Your task to perform on an android device: delete the emails in spam in the gmail app Image 0: 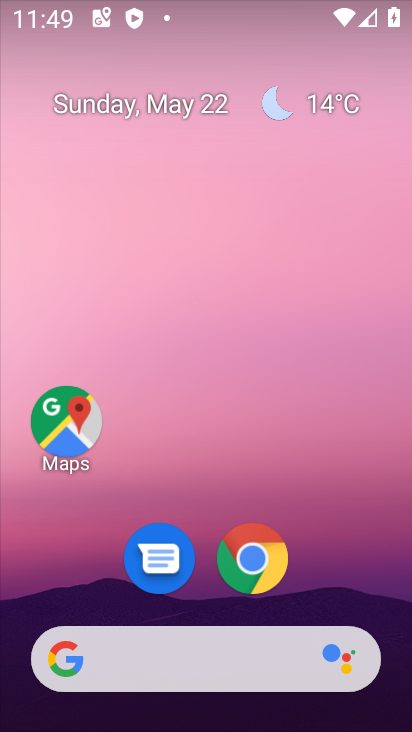
Step 0: drag from (363, 601) to (410, 347)
Your task to perform on an android device: delete the emails in spam in the gmail app Image 1: 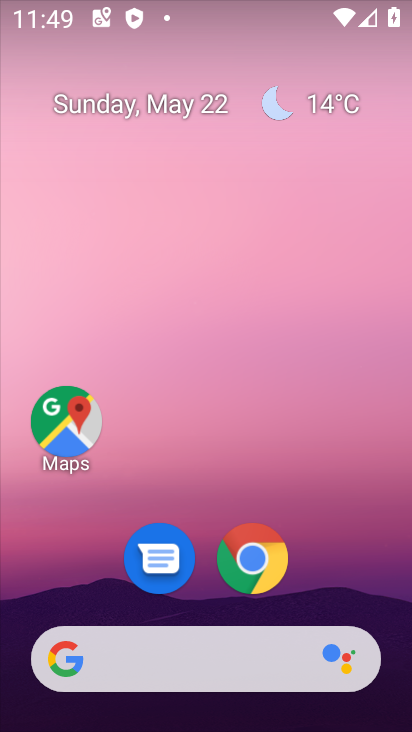
Step 1: drag from (346, 569) to (364, 1)
Your task to perform on an android device: delete the emails in spam in the gmail app Image 2: 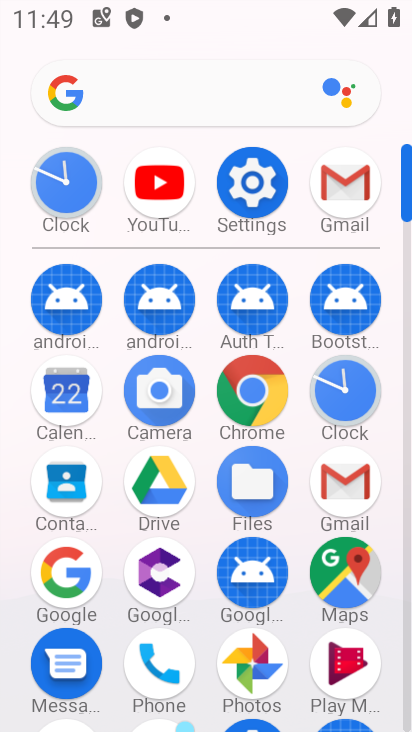
Step 2: click (346, 204)
Your task to perform on an android device: delete the emails in spam in the gmail app Image 3: 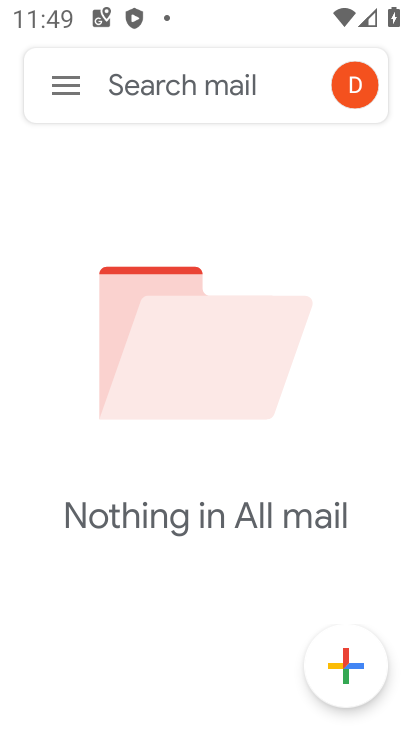
Step 3: click (66, 87)
Your task to perform on an android device: delete the emails in spam in the gmail app Image 4: 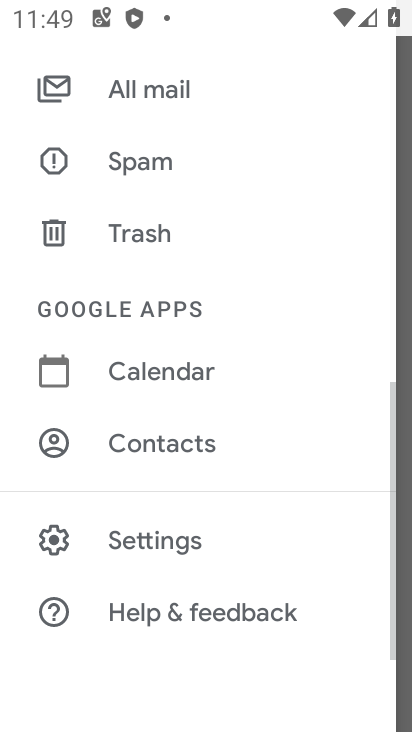
Step 4: click (139, 167)
Your task to perform on an android device: delete the emails in spam in the gmail app Image 5: 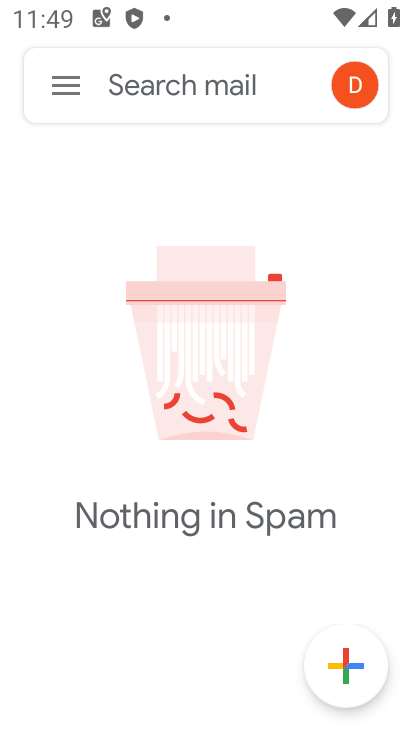
Step 5: task complete